Your task to perform on an android device: open a new tab in the chrome app Image 0: 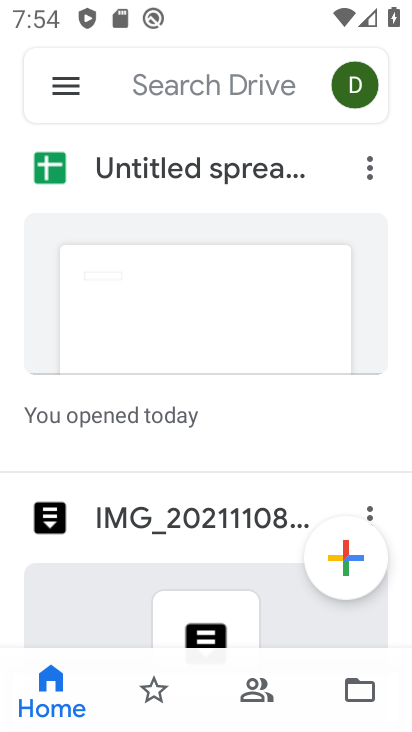
Step 0: press home button
Your task to perform on an android device: open a new tab in the chrome app Image 1: 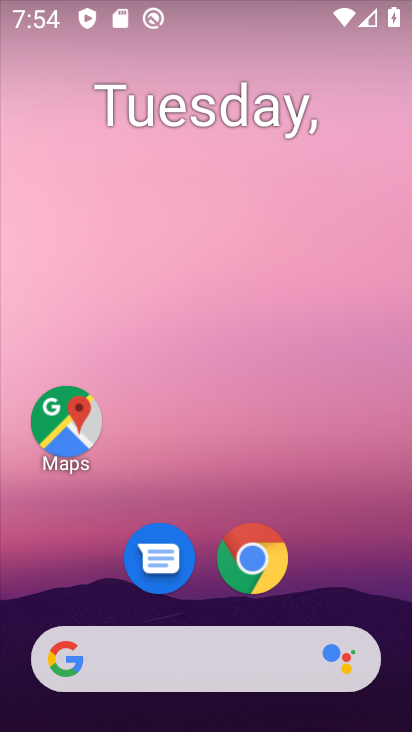
Step 1: click (245, 570)
Your task to perform on an android device: open a new tab in the chrome app Image 2: 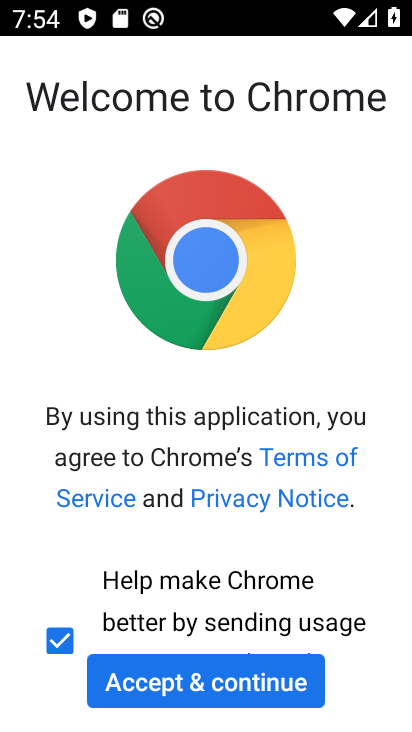
Step 2: click (209, 677)
Your task to perform on an android device: open a new tab in the chrome app Image 3: 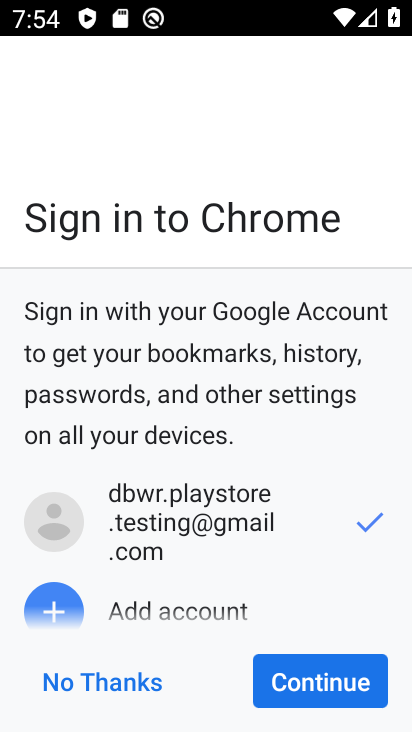
Step 3: click (306, 659)
Your task to perform on an android device: open a new tab in the chrome app Image 4: 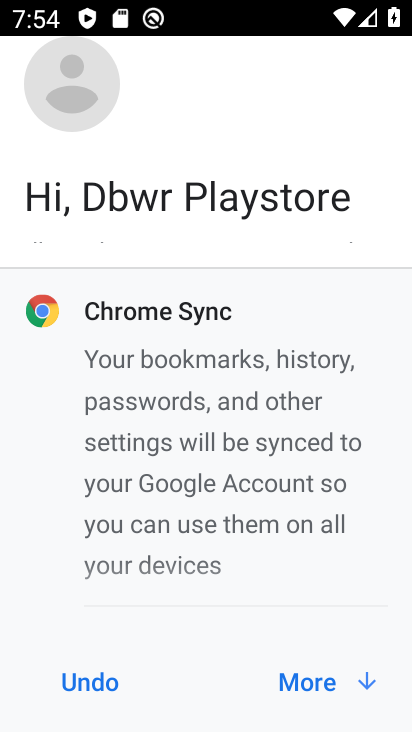
Step 4: click (349, 685)
Your task to perform on an android device: open a new tab in the chrome app Image 5: 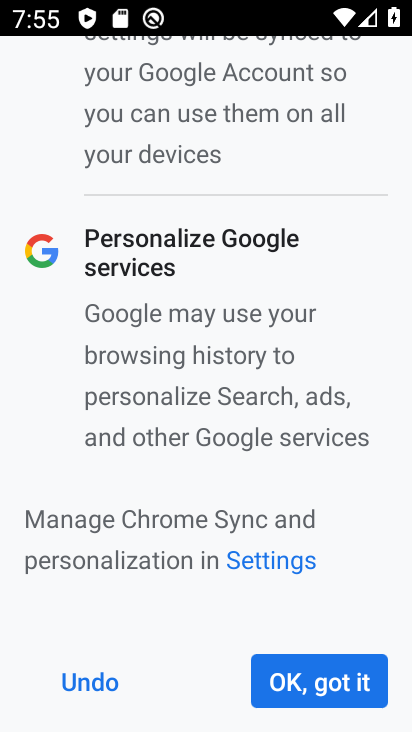
Step 5: click (339, 674)
Your task to perform on an android device: open a new tab in the chrome app Image 6: 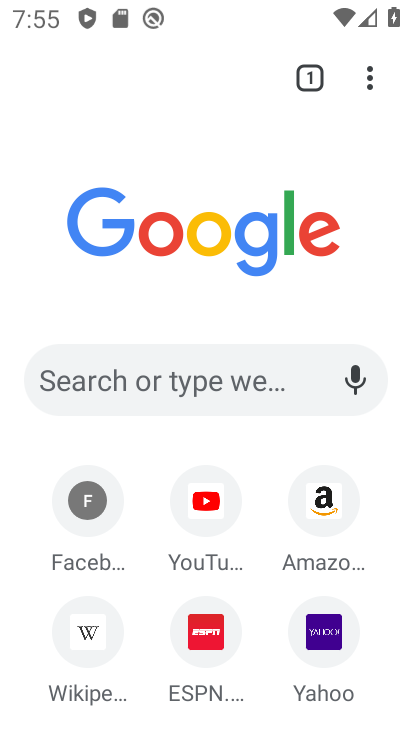
Step 6: click (305, 81)
Your task to perform on an android device: open a new tab in the chrome app Image 7: 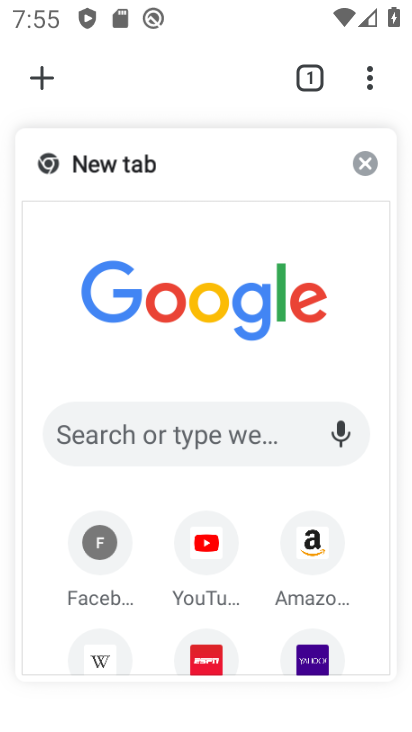
Step 7: click (32, 79)
Your task to perform on an android device: open a new tab in the chrome app Image 8: 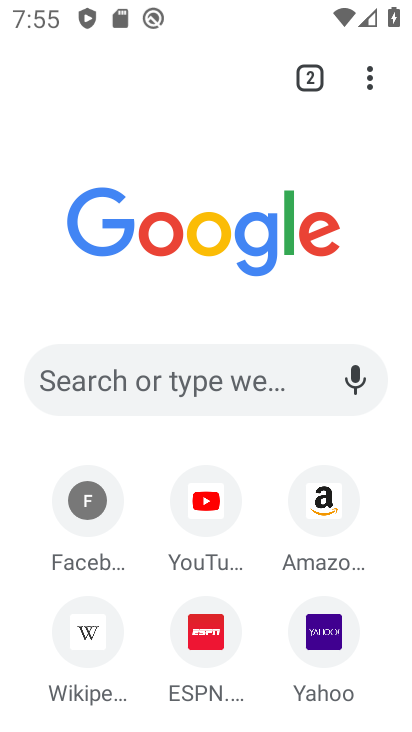
Step 8: task complete